Your task to perform on an android device: Open display settings Image 0: 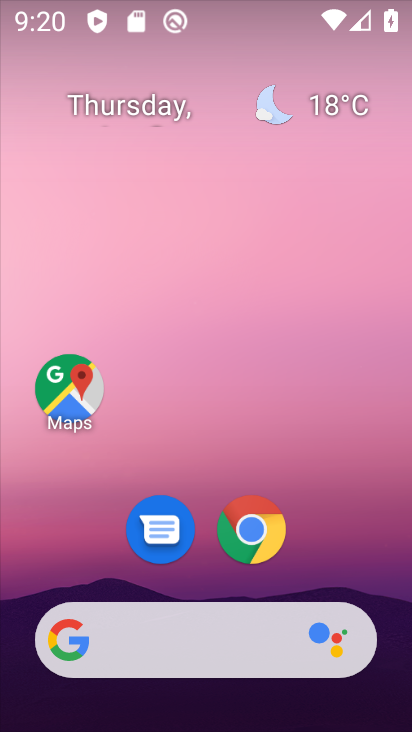
Step 0: drag from (401, 706) to (348, 39)
Your task to perform on an android device: Open display settings Image 1: 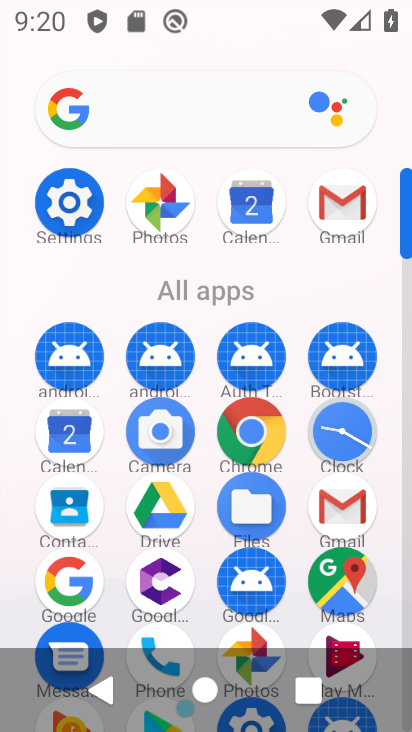
Step 1: click (68, 204)
Your task to perform on an android device: Open display settings Image 2: 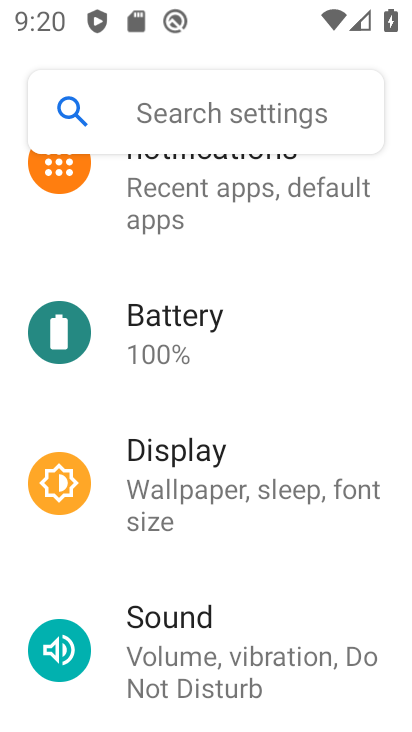
Step 2: click (162, 484)
Your task to perform on an android device: Open display settings Image 3: 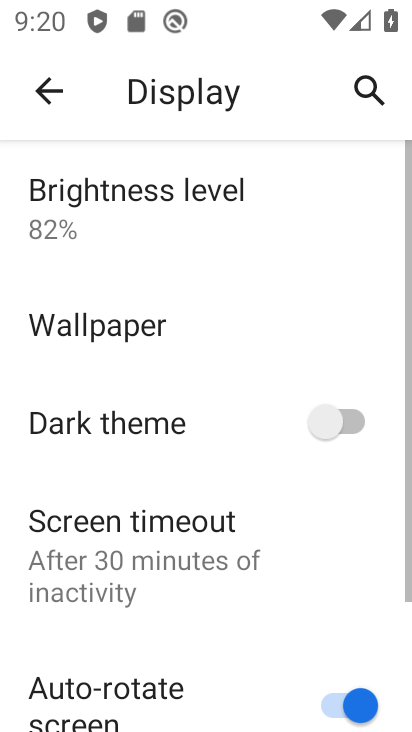
Step 3: drag from (270, 648) to (257, 145)
Your task to perform on an android device: Open display settings Image 4: 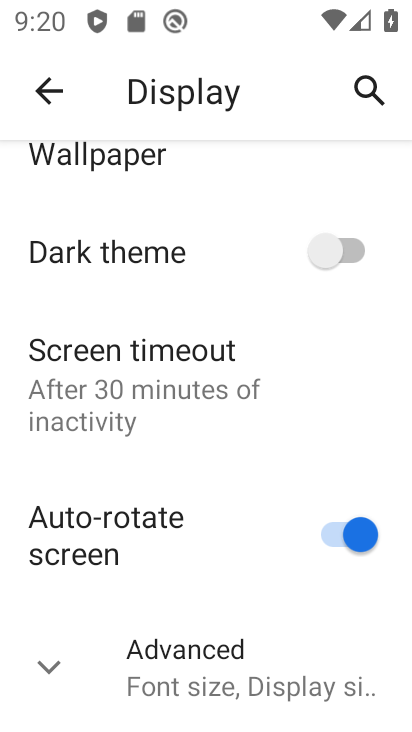
Step 4: click (42, 672)
Your task to perform on an android device: Open display settings Image 5: 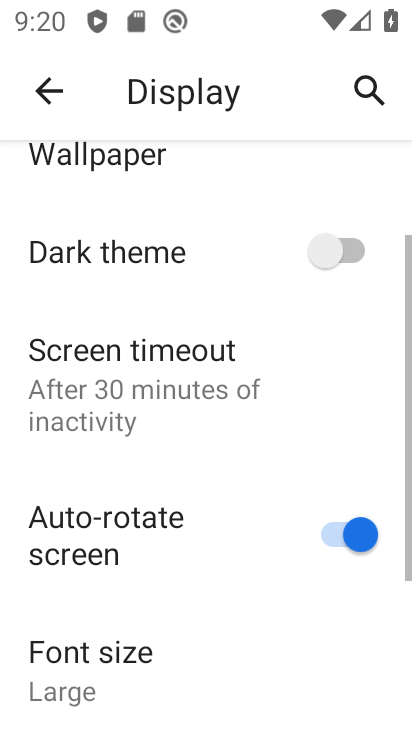
Step 5: task complete